Your task to perform on an android device: Go to battery settings Image 0: 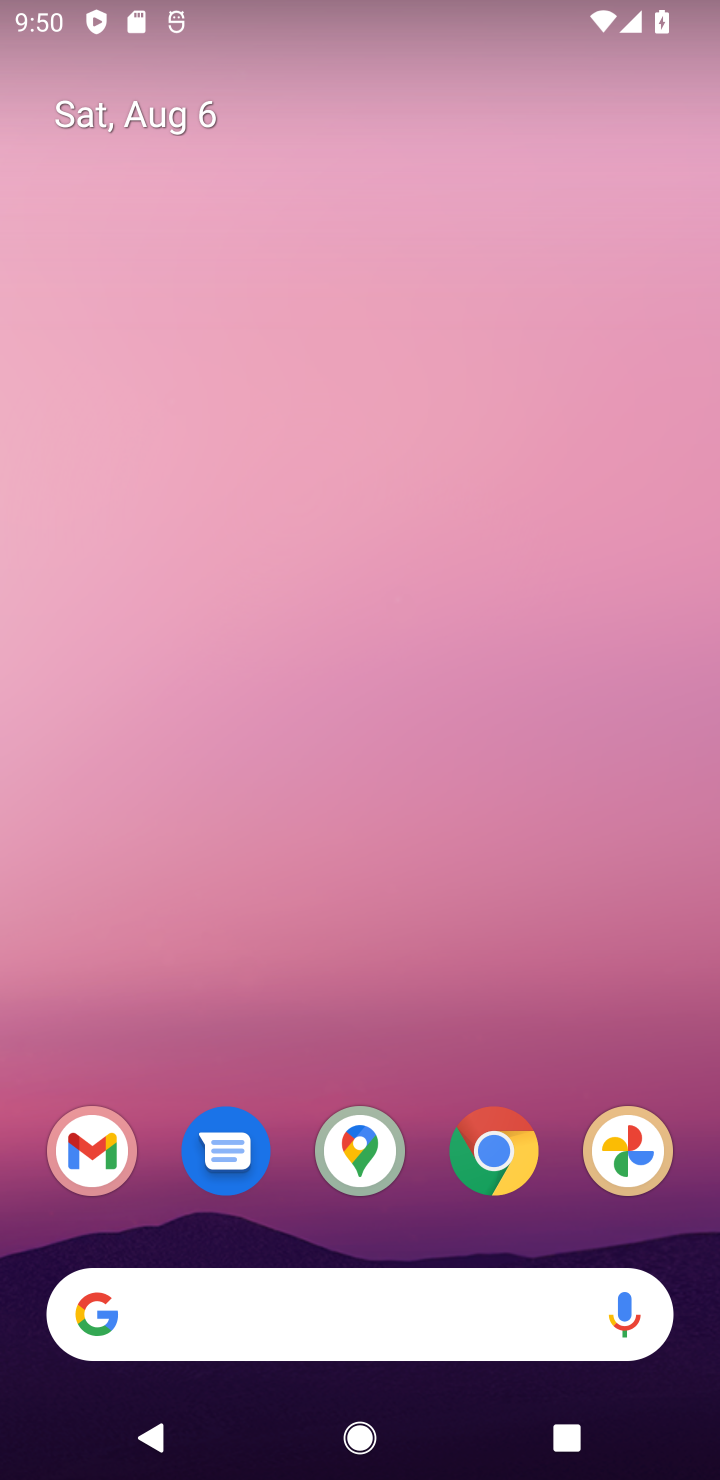
Step 0: drag from (450, 1044) to (453, 418)
Your task to perform on an android device: Go to battery settings Image 1: 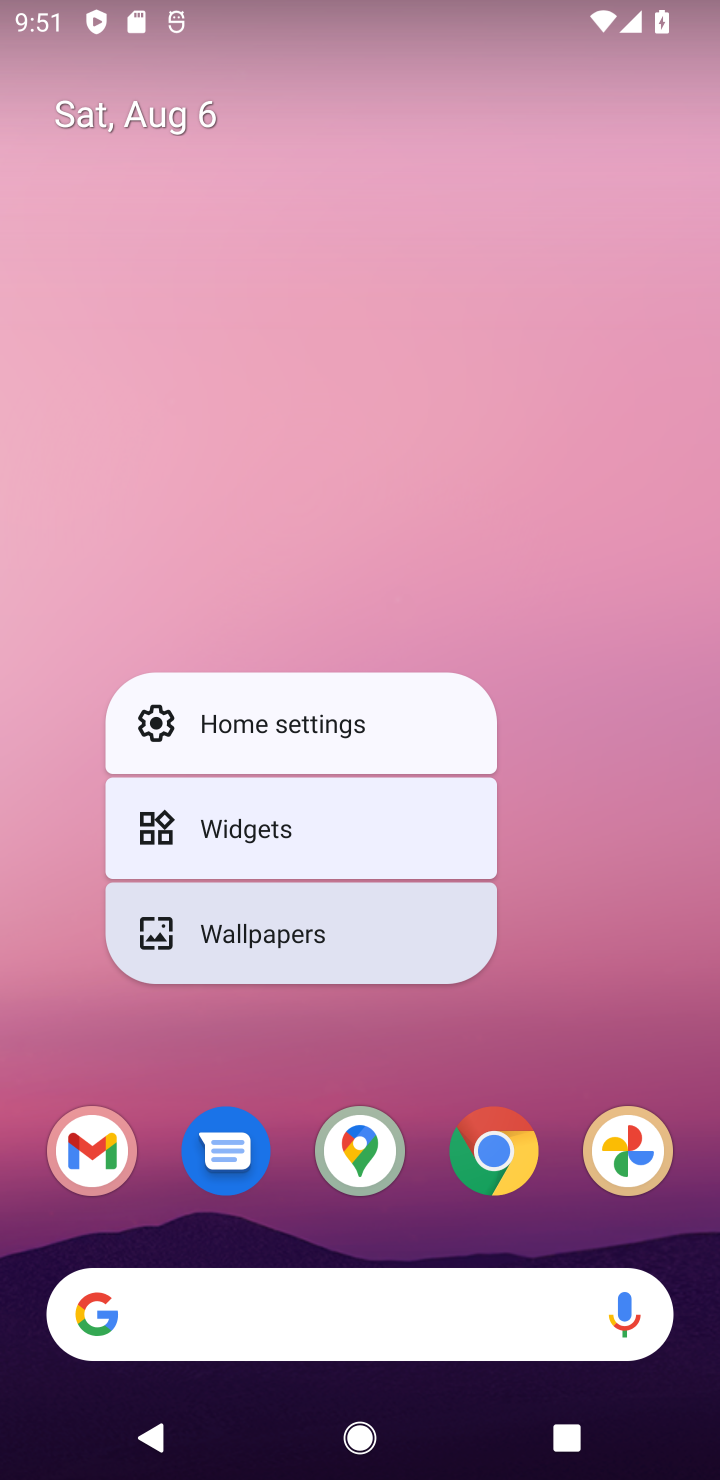
Step 1: click (579, 661)
Your task to perform on an android device: Go to battery settings Image 2: 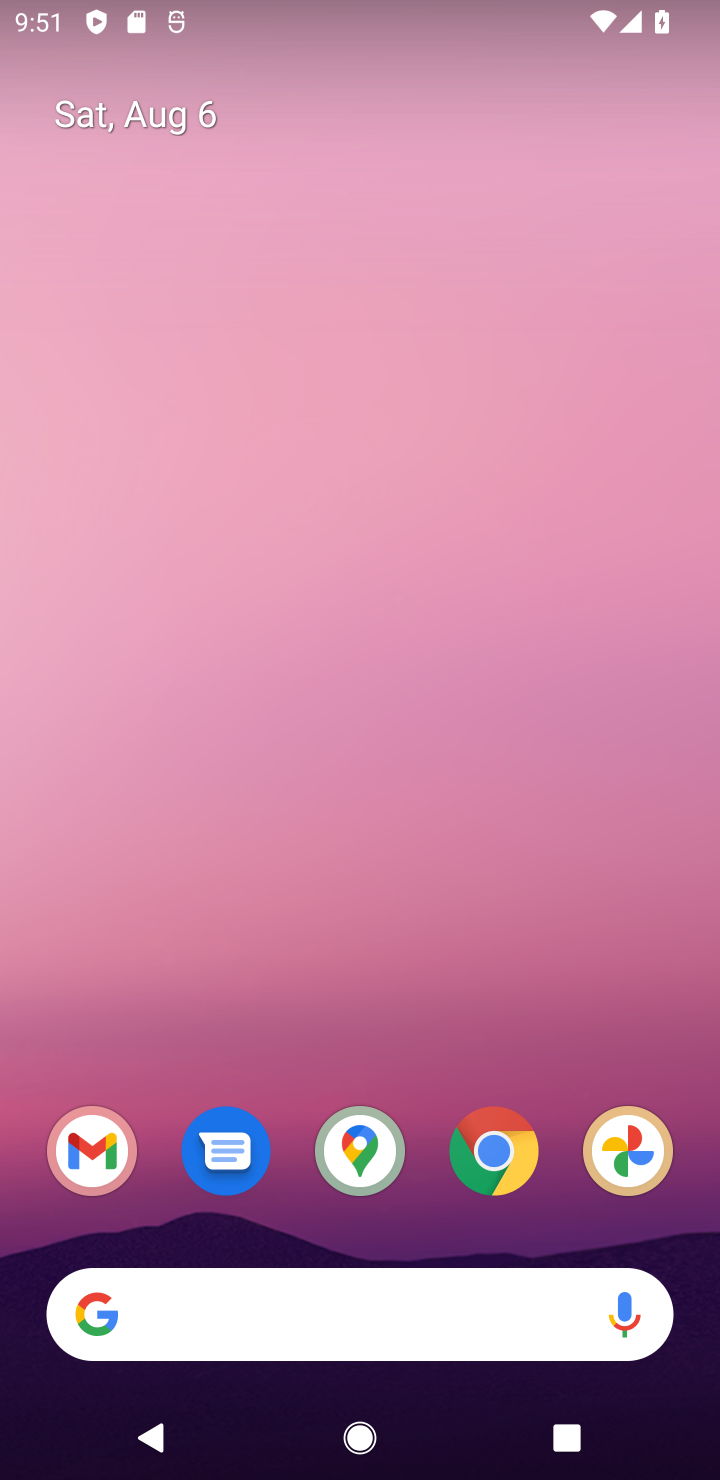
Step 2: drag from (413, 1007) to (142, 392)
Your task to perform on an android device: Go to battery settings Image 3: 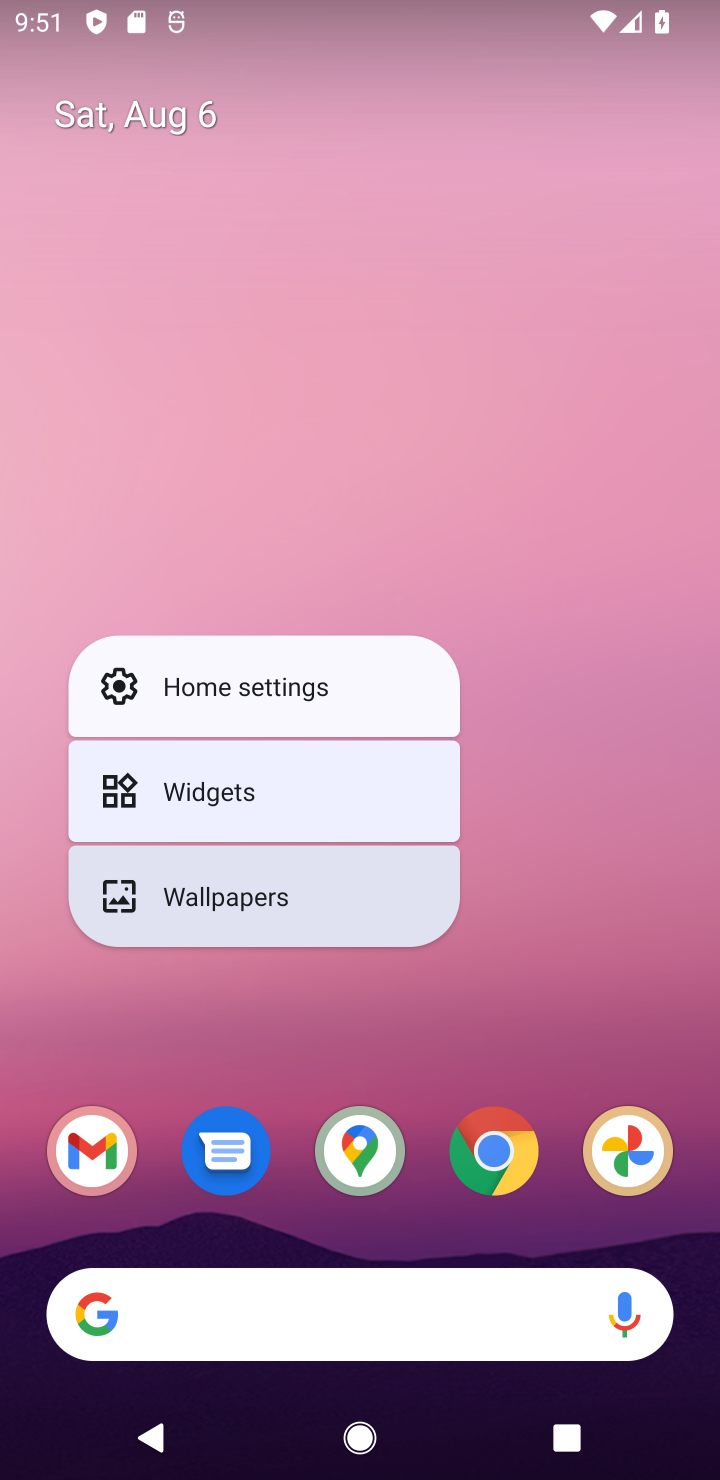
Step 3: click (272, 496)
Your task to perform on an android device: Go to battery settings Image 4: 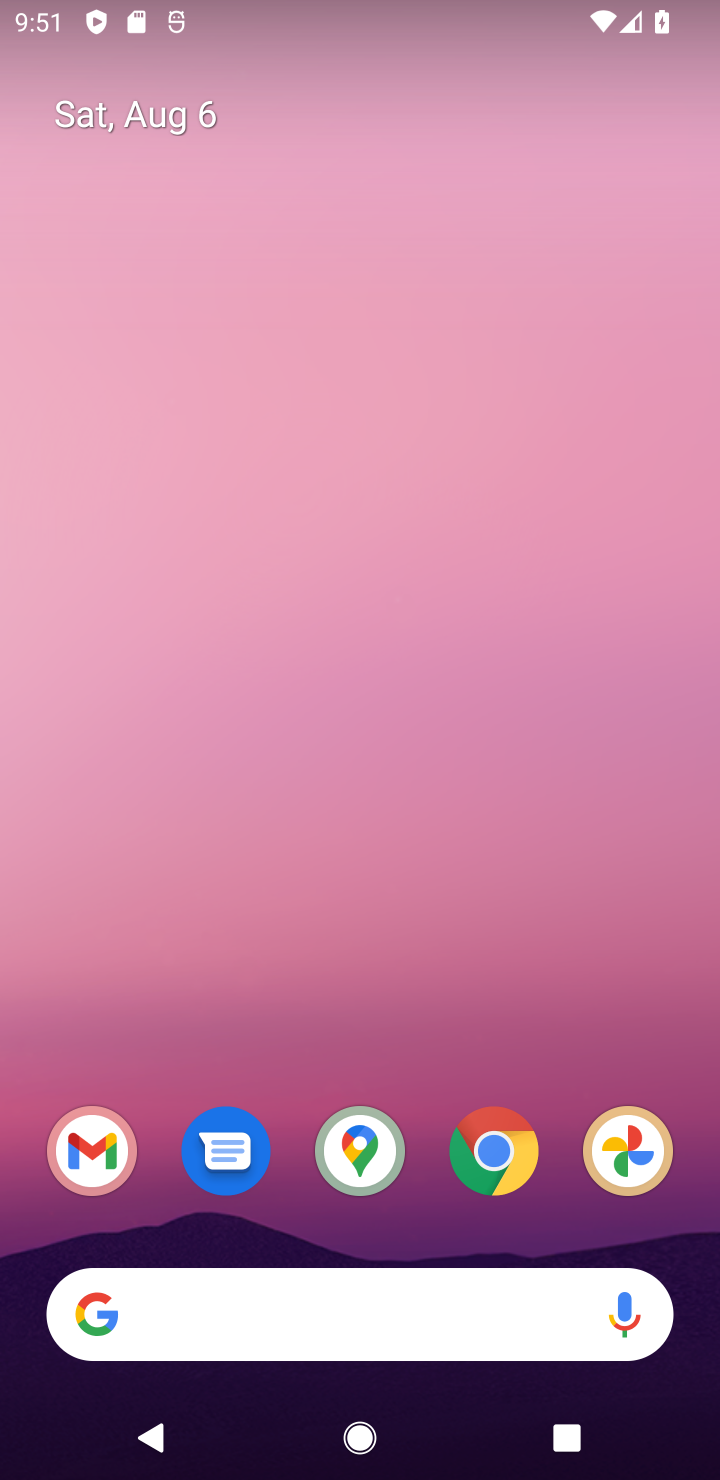
Step 4: drag from (348, 989) to (358, 337)
Your task to perform on an android device: Go to battery settings Image 5: 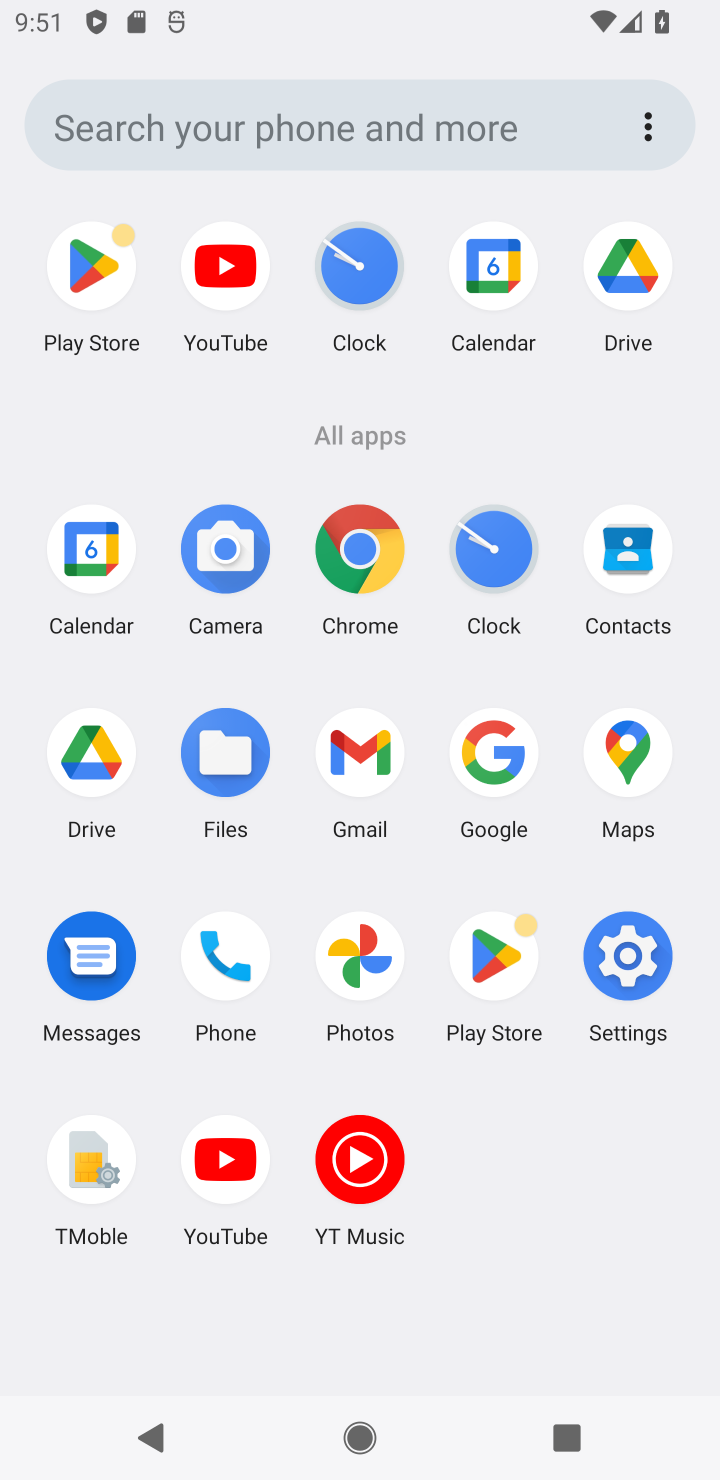
Step 5: click (637, 957)
Your task to perform on an android device: Go to battery settings Image 6: 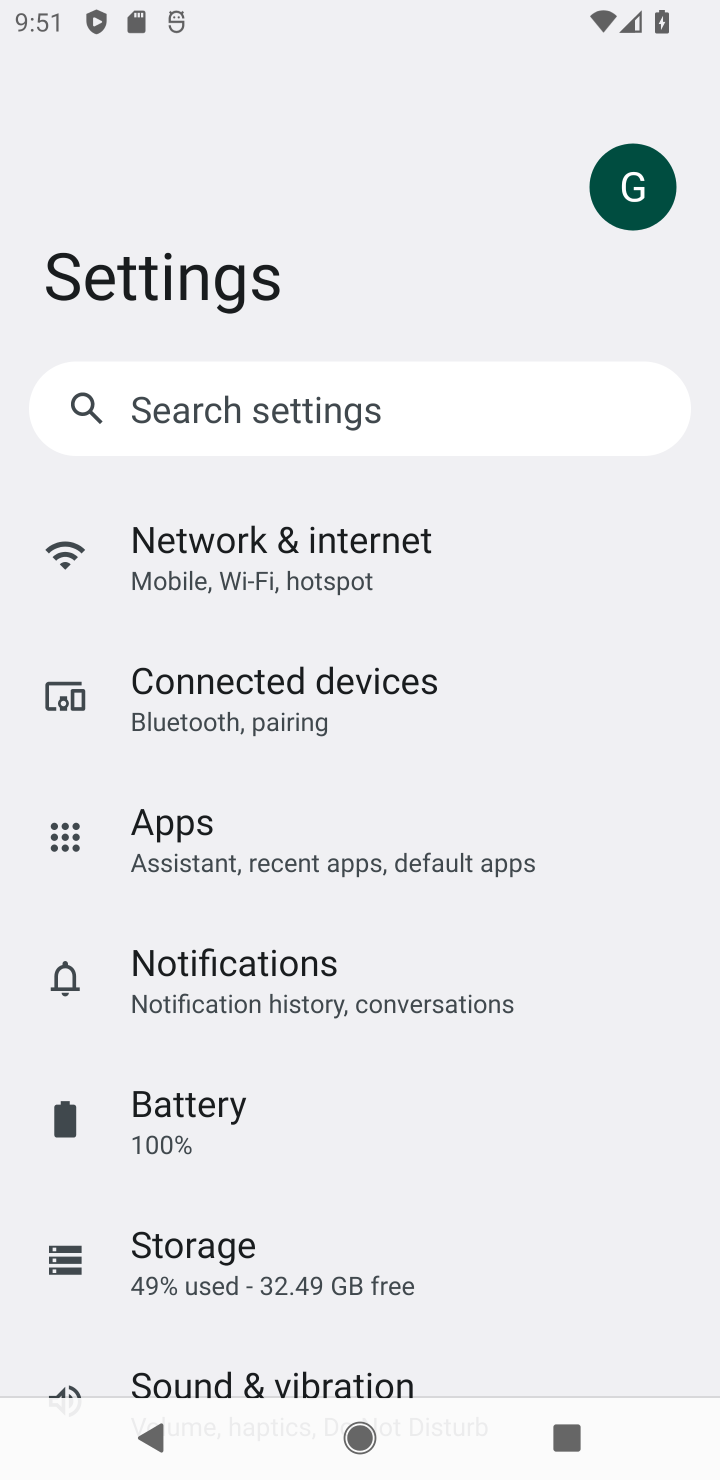
Step 6: click (331, 1130)
Your task to perform on an android device: Go to battery settings Image 7: 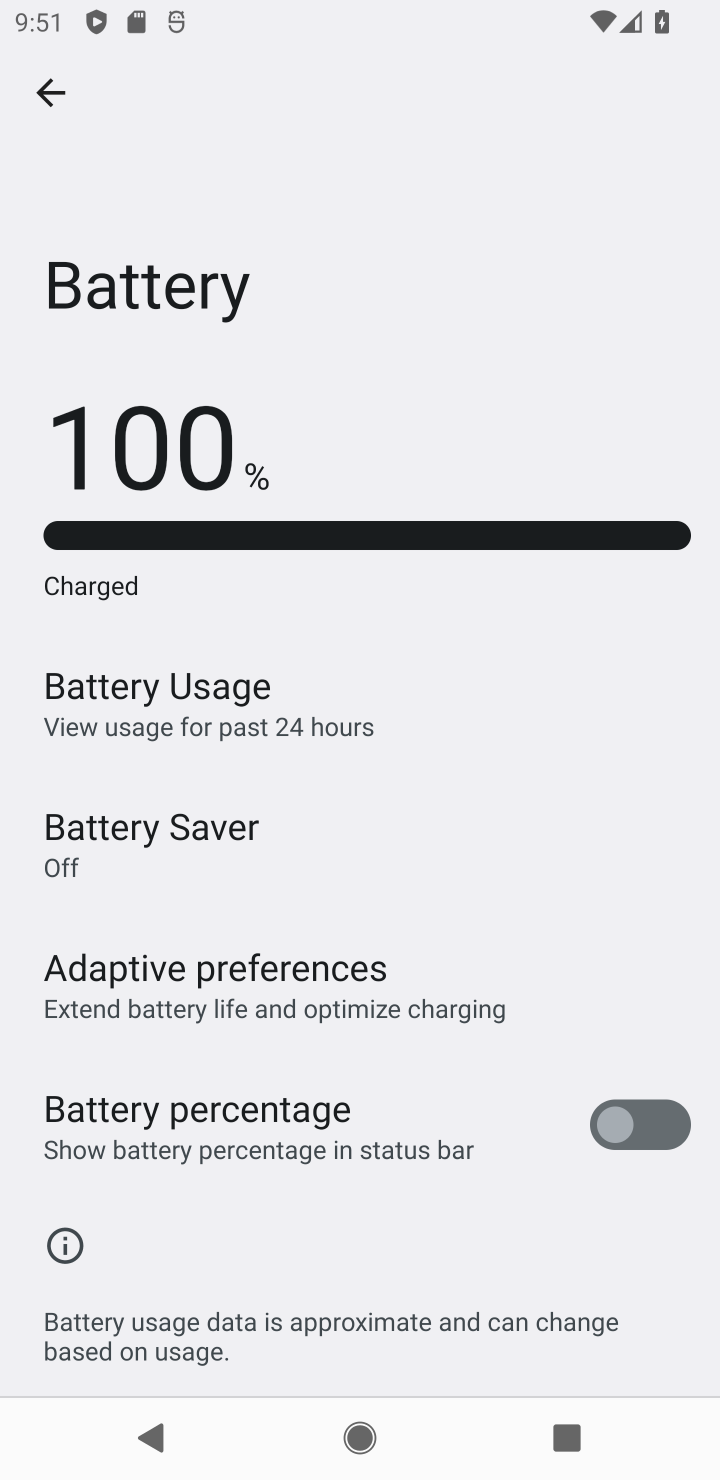
Step 7: task complete